Your task to perform on an android device: Turn on the flashlight Image 0: 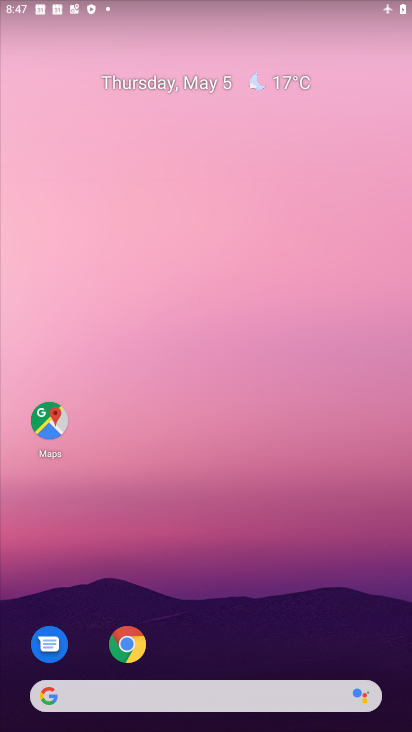
Step 0: drag from (203, 558) to (216, 147)
Your task to perform on an android device: Turn on the flashlight Image 1: 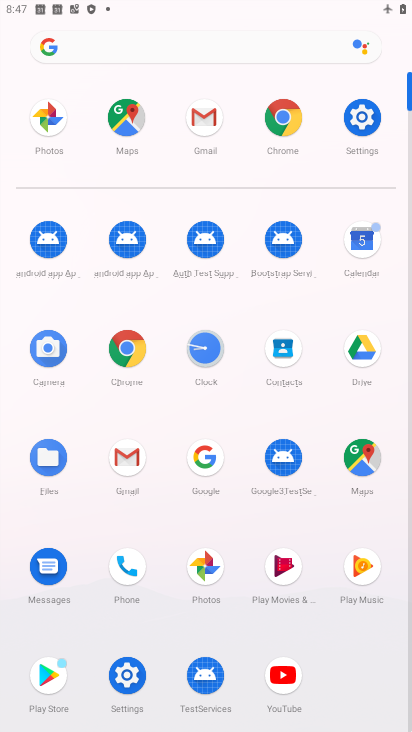
Step 1: click (364, 109)
Your task to perform on an android device: Turn on the flashlight Image 2: 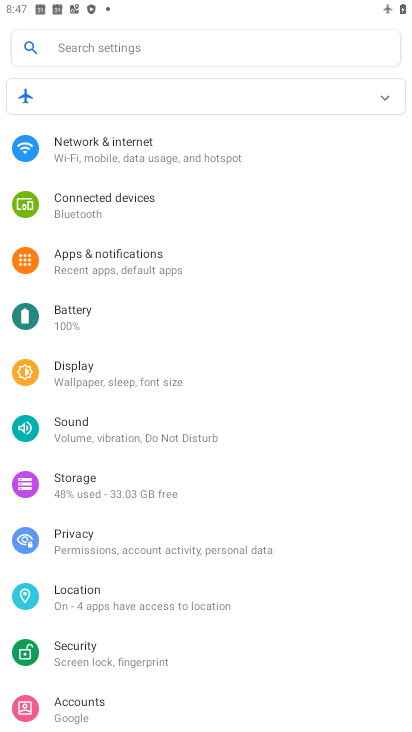
Step 2: click (108, 148)
Your task to perform on an android device: Turn on the flashlight Image 3: 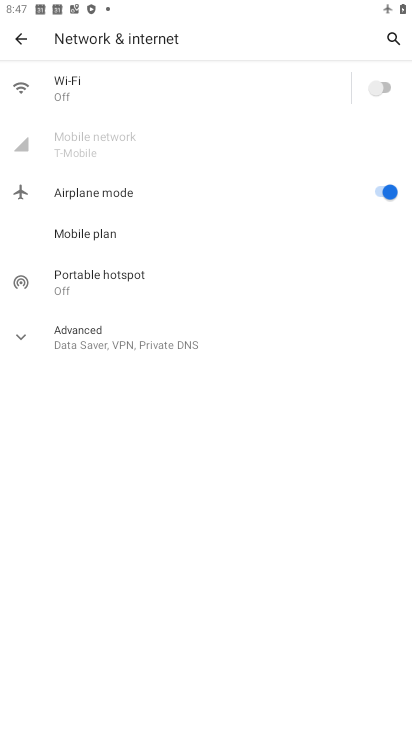
Step 3: click (22, 36)
Your task to perform on an android device: Turn on the flashlight Image 4: 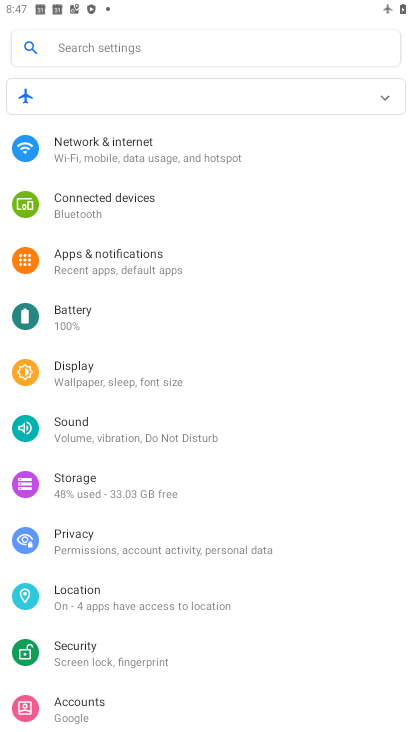
Step 4: click (201, 49)
Your task to perform on an android device: Turn on the flashlight Image 5: 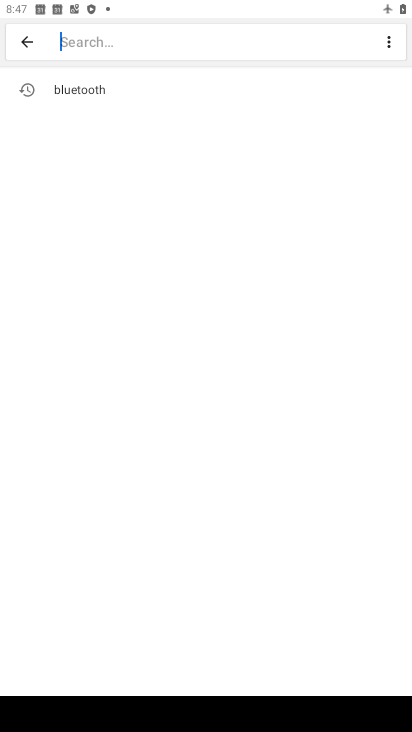
Step 5: type "flashlight"
Your task to perform on an android device: Turn on the flashlight Image 6: 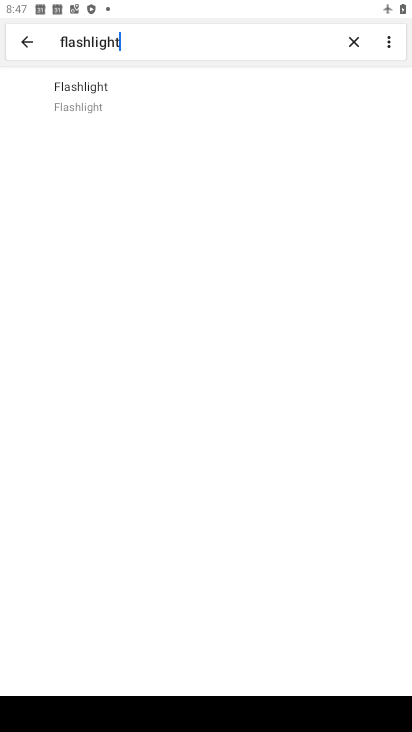
Step 6: click (154, 78)
Your task to perform on an android device: Turn on the flashlight Image 7: 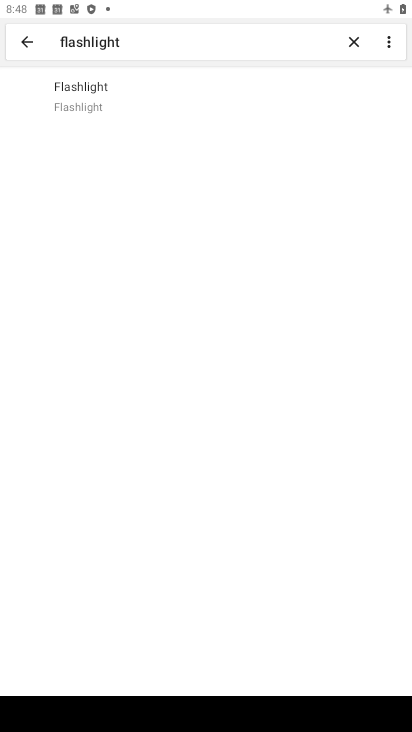
Step 7: task complete